Your task to perform on an android device: Search for the best 4K TV Image 0: 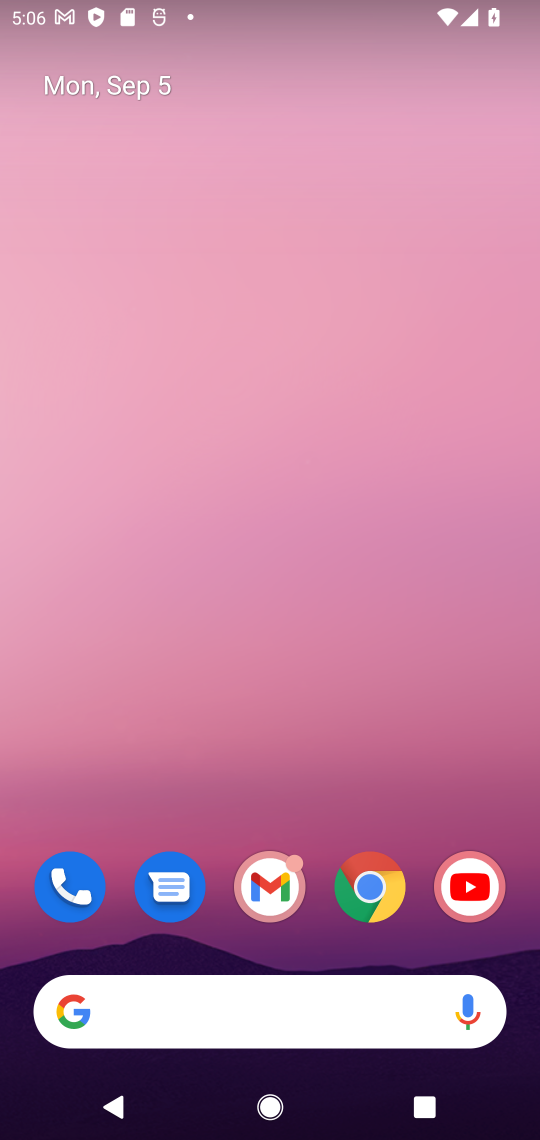
Step 0: drag from (401, 794) to (100, 6)
Your task to perform on an android device: Search for the best 4K TV Image 1: 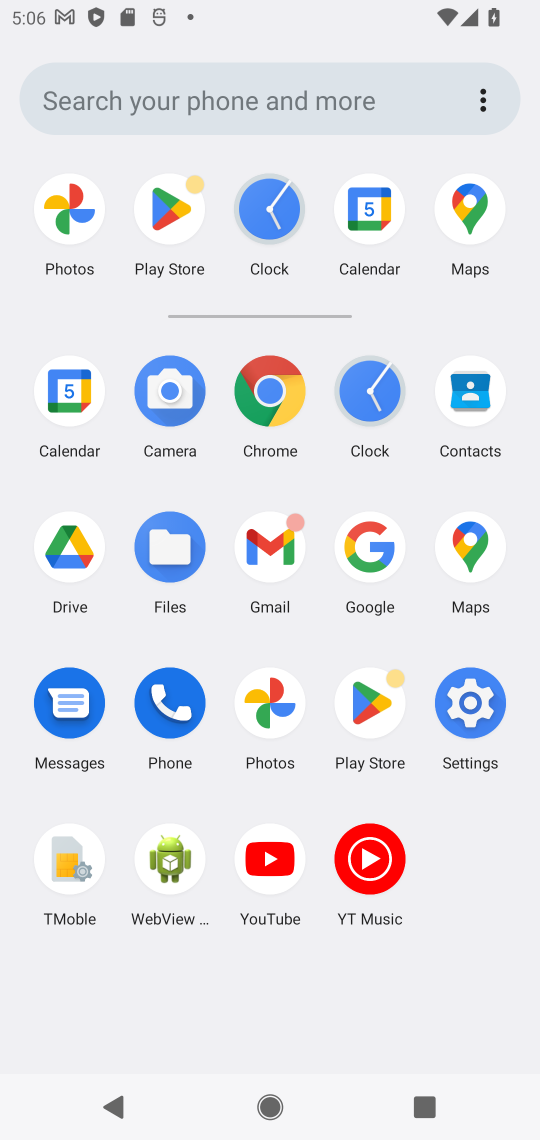
Step 1: click (265, 388)
Your task to perform on an android device: Search for the best 4K TV Image 2: 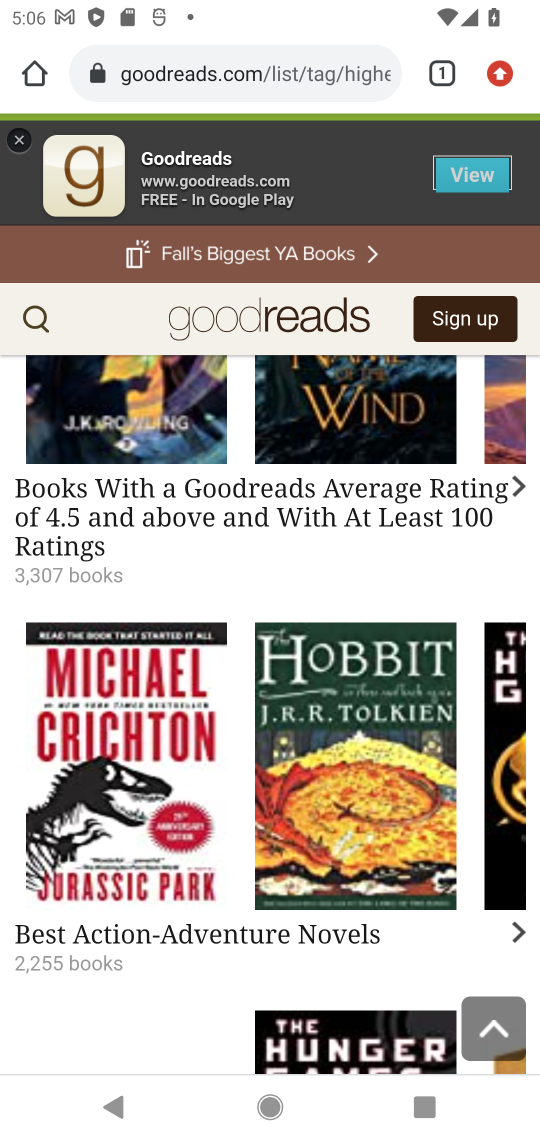
Step 2: click (269, 75)
Your task to perform on an android device: Search for the best 4K TV Image 3: 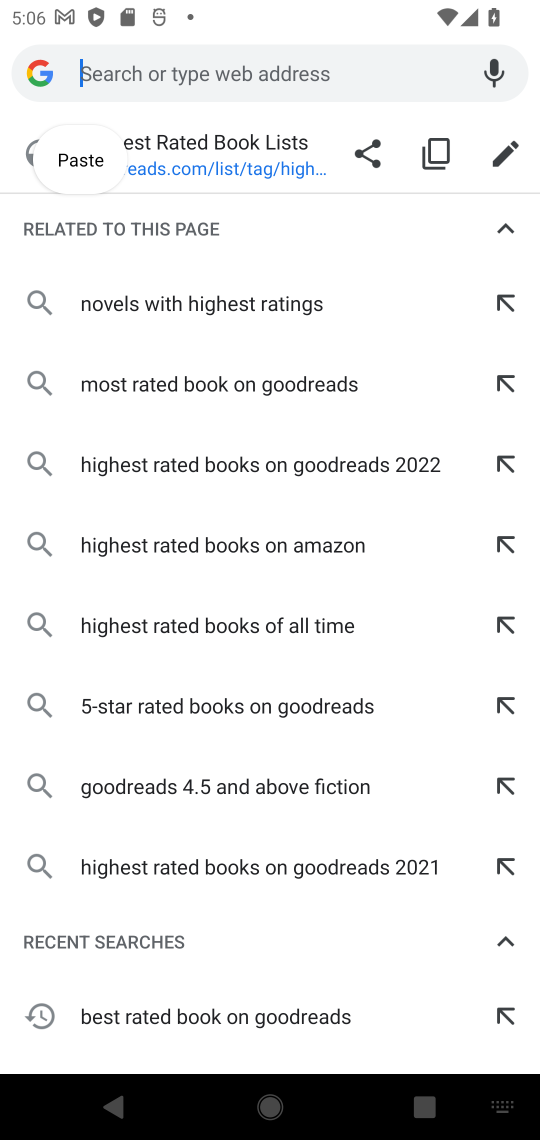
Step 3: type "best 4K TV"
Your task to perform on an android device: Search for the best 4K TV Image 4: 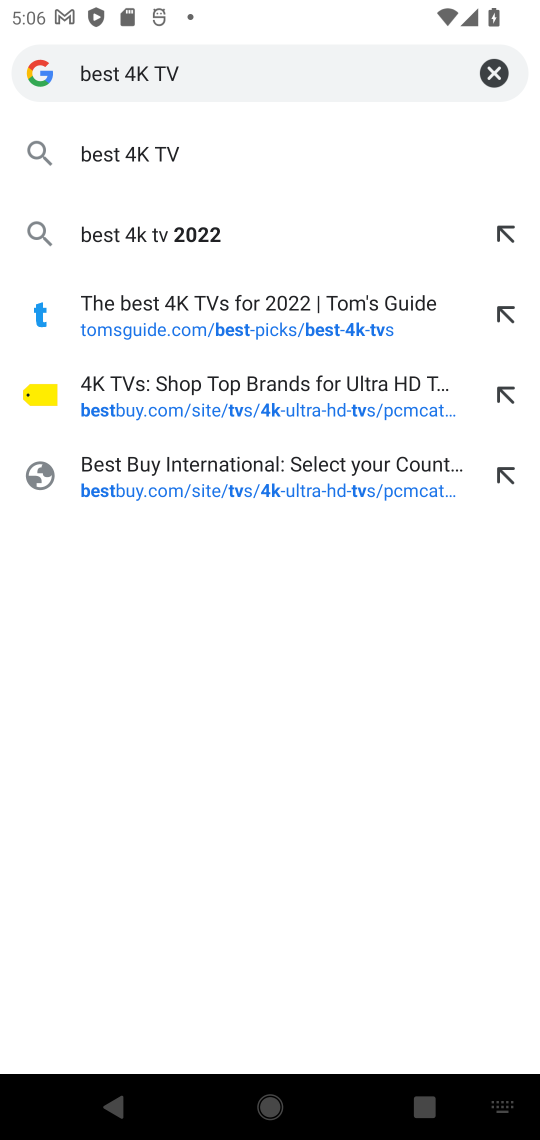
Step 4: press enter
Your task to perform on an android device: Search for the best 4K TV Image 5: 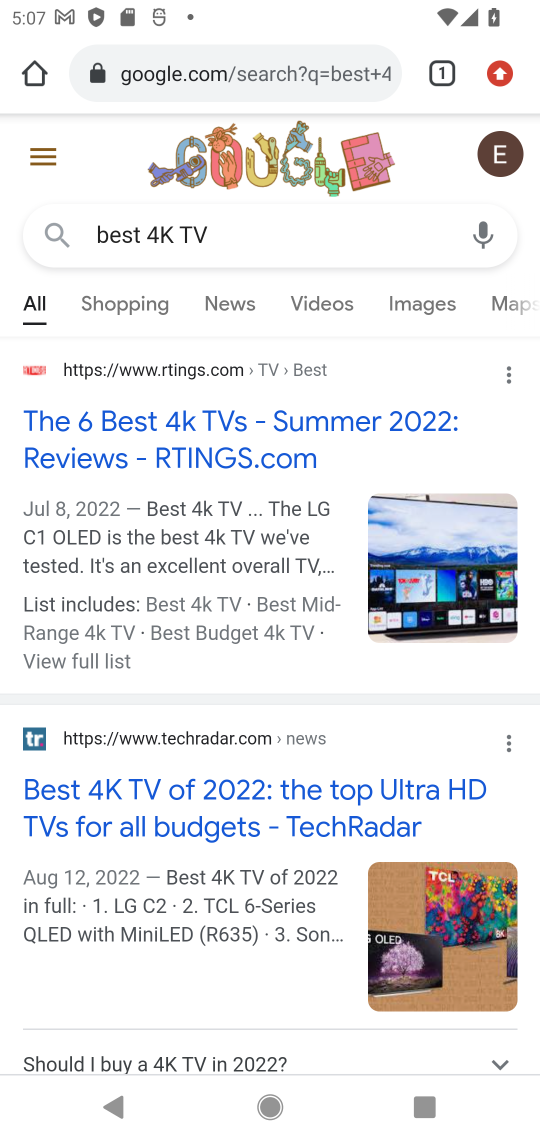
Step 5: click (173, 442)
Your task to perform on an android device: Search for the best 4K TV Image 6: 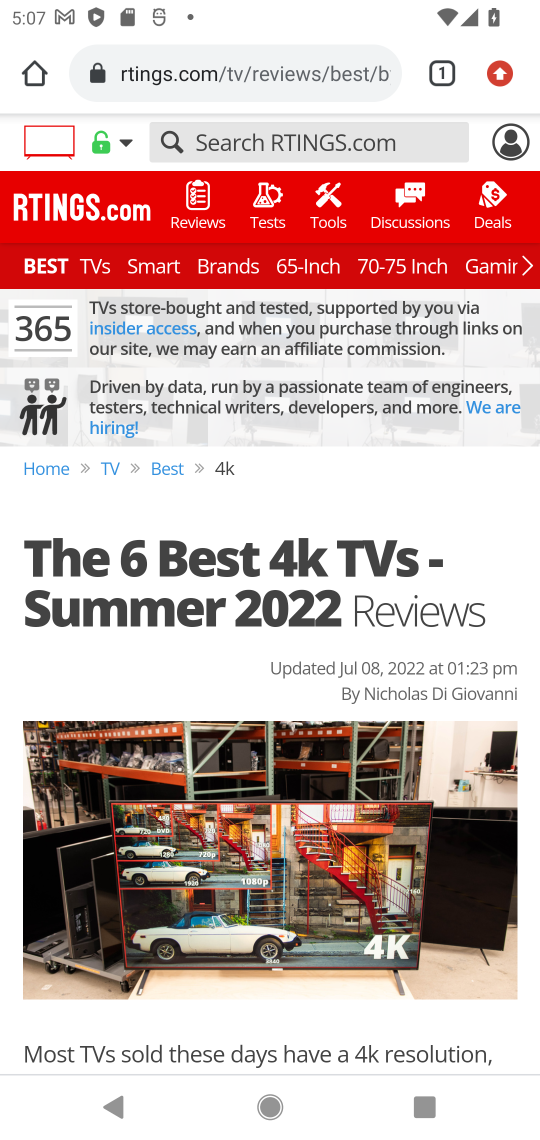
Step 6: drag from (188, 337) to (246, 12)
Your task to perform on an android device: Search for the best 4K TV Image 7: 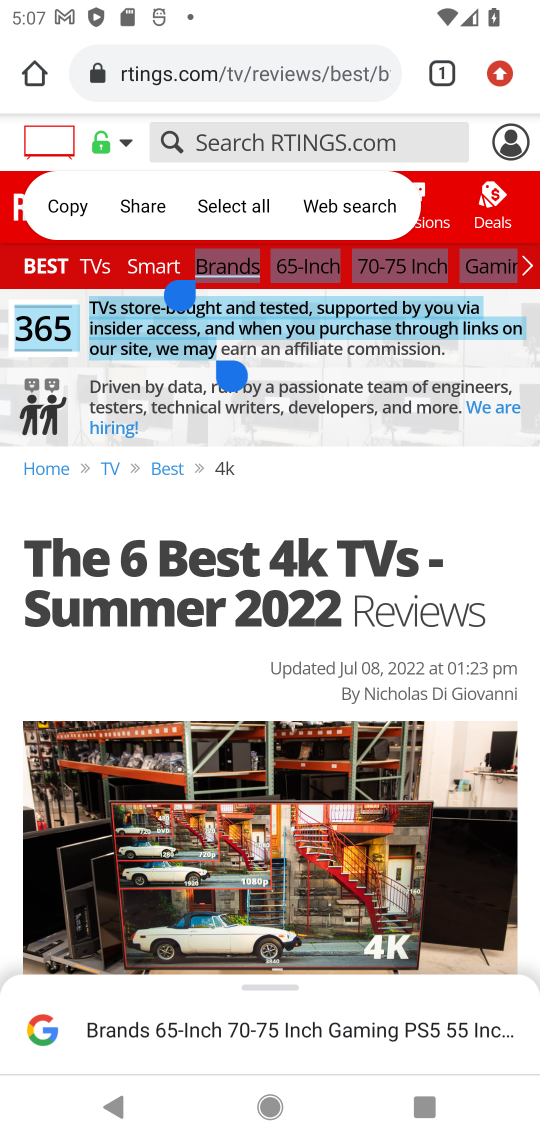
Step 7: drag from (280, 494) to (311, 270)
Your task to perform on an android device: Search for the best 4K TV Image 8: 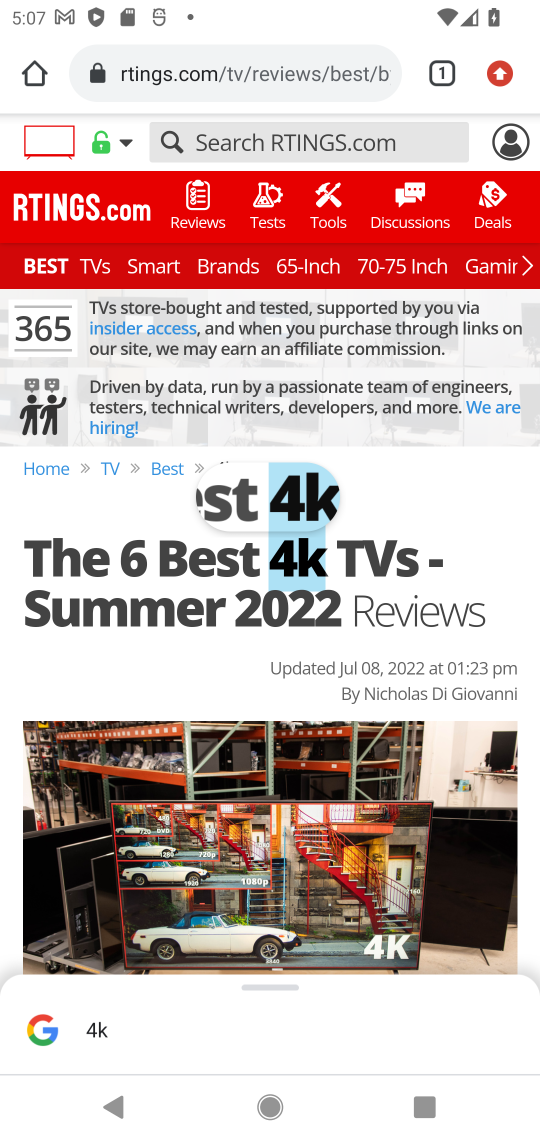
Step 8: click (157, 629)
Your task to perform on an android device: Search for the best 4K TV Image 9: 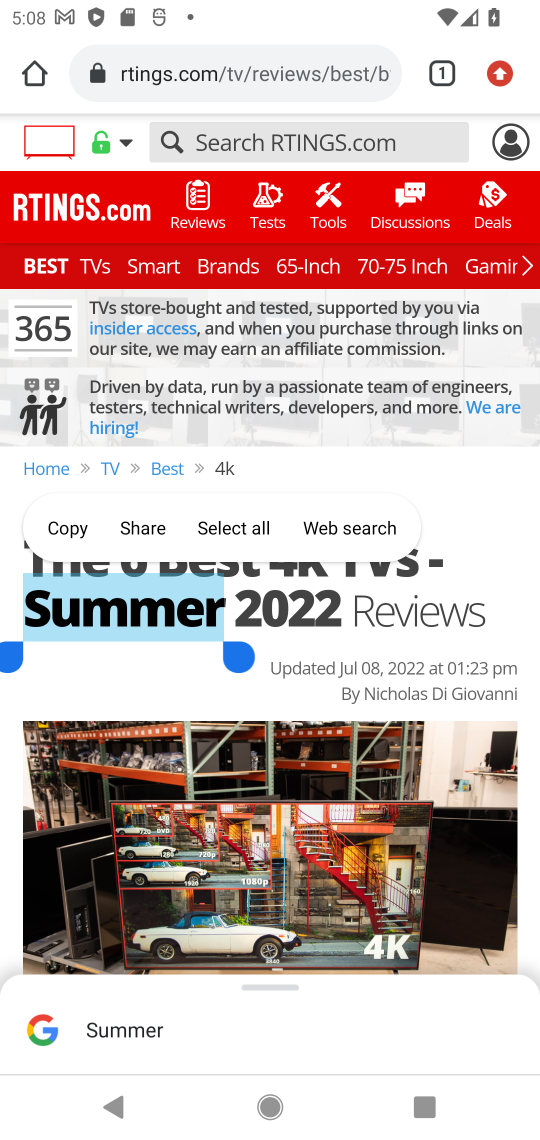
Step 9: click (453, 573)
Your task to perform on an android device: Search for the best 4K TV Image 10: 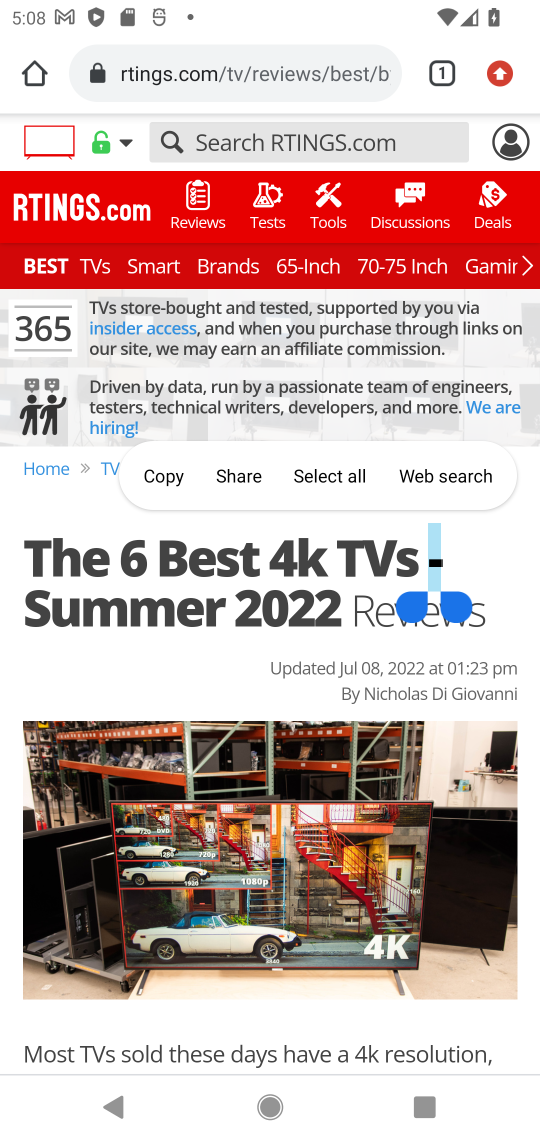
Step 10: drag from (348, 584) to (352, 100)
Your task to perform on an android device: Search for the best 4K TV Image 11: 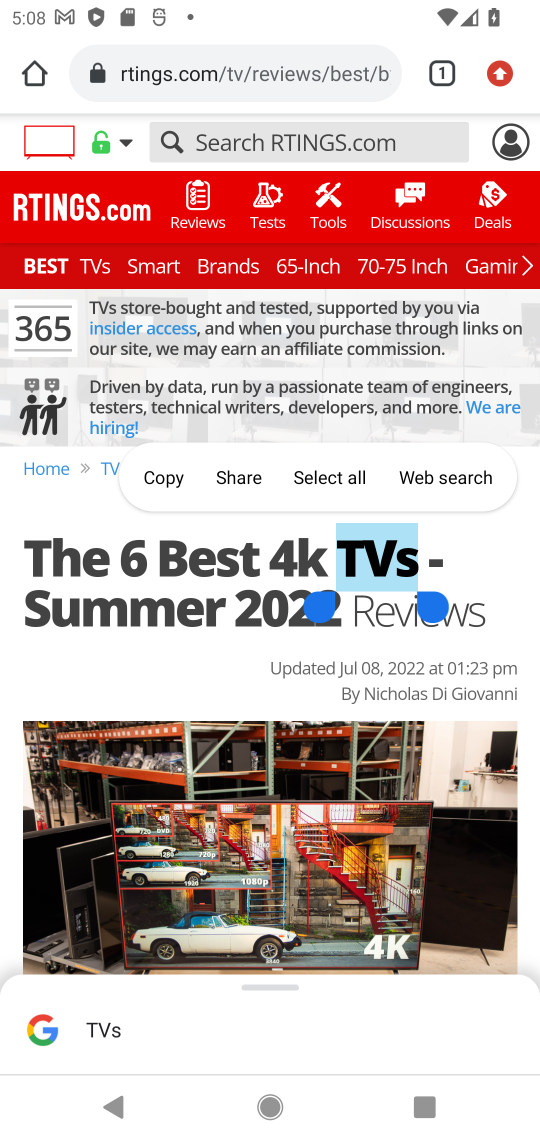
Step 11: click (147, 659)
Your task to perform on an android device: Search for the best 4K TV Image 12: 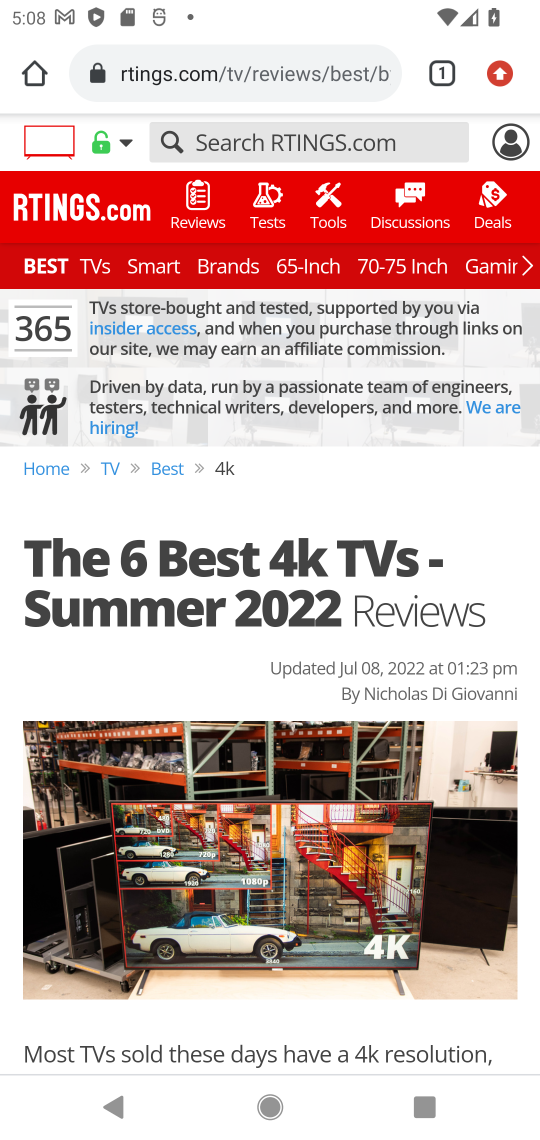
Step 12: task complete